Your task to perform on an android device: read, delete, or share a saved page in the chrome app Image 0: 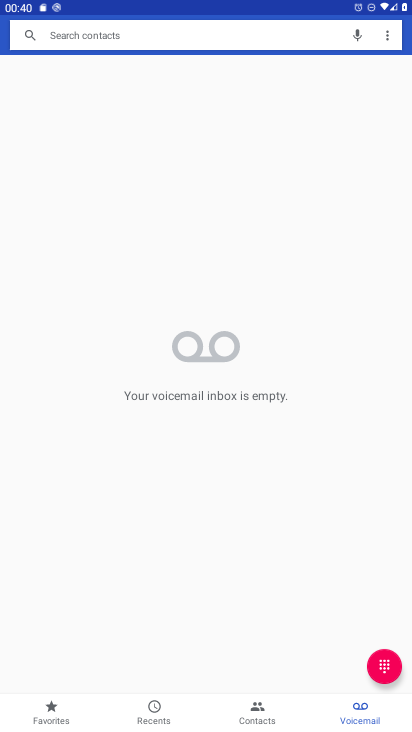
Step 0: press home button
Your task to perform on an android device: read, delete, or share a saved page in the chrome app Image 1: 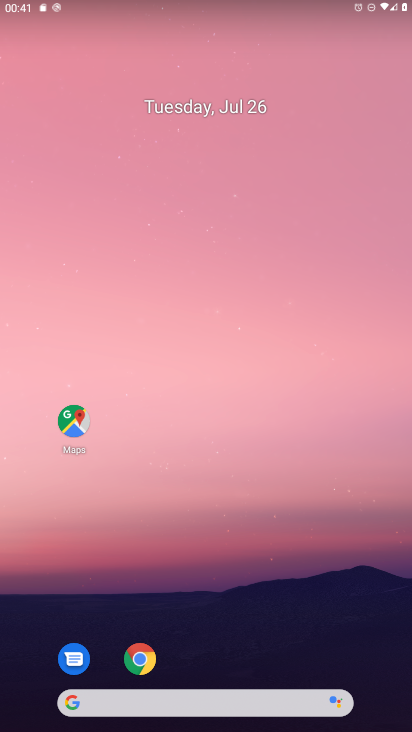
Step 1: click (140, 653)
Your task to perform on an android device: read, delete, or share a saved page in the chrome app Image 2: 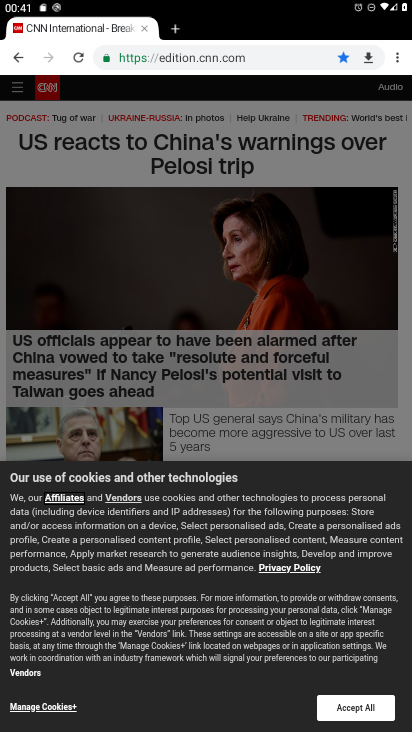
Step 2: drag from (157, 433) to (281, 188)
Your task to perform on an android device: read, delete, or share a saved page in the chrome app Image 3: 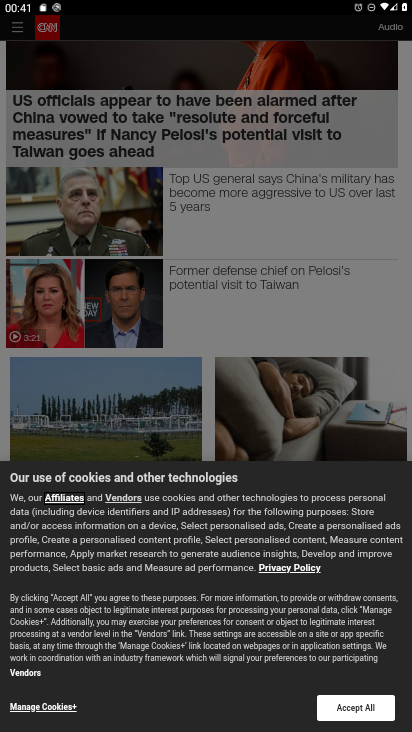
Step 3: drag from (309, 133) to (145, 512)
Your task to perform on an android device: read, delete, or share a saved page in the chrome app Image 4: 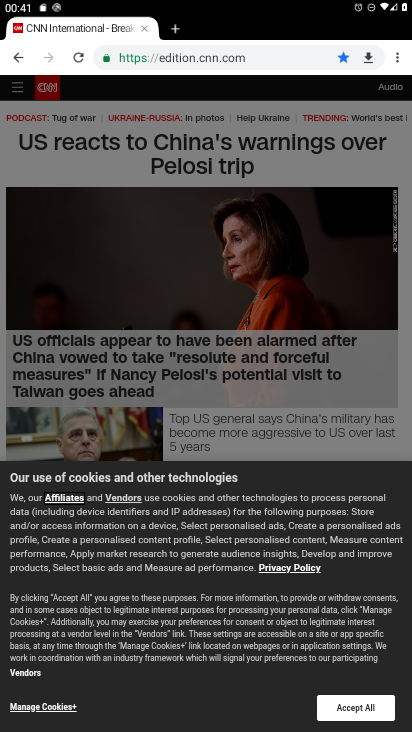
Step 4: click (340, 59)
Your task to perform on an android device: read, delete, or share a saved page in the chrome app Image 5: 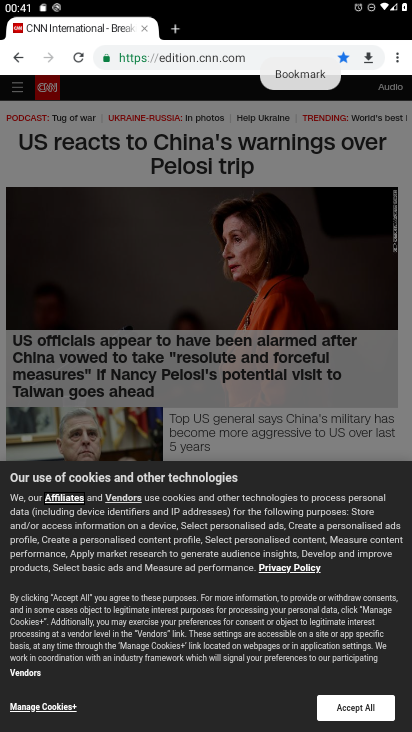
Step 5: click (340, 59)
Your task to perform on an android device: read, delete, or share a saved page in the chrome app Image 6: 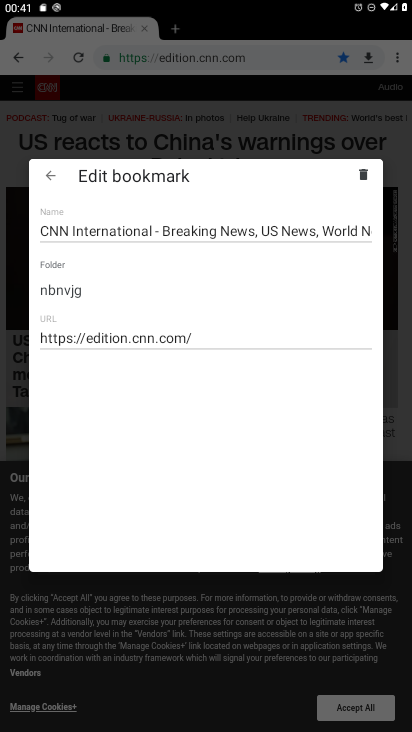
Step 6: click (363, 170)
Your task to perform on an android device: read, delete, or share a saved page in the chrome app Image 7: 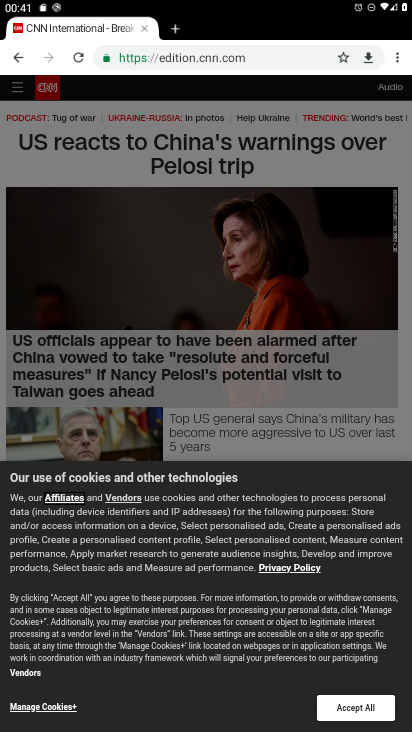
Step 7: click (340, 58)
Your task to perform on an android device: read, delete, or share a saved page in the chrome app Image 8: 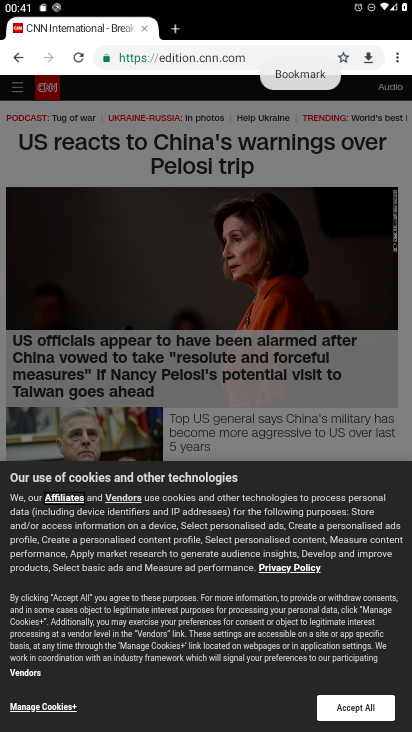
Step 8: click (344, 56)
Your task to perform on an android device: read, delete, or share a saved page in the chrome app Image 9: 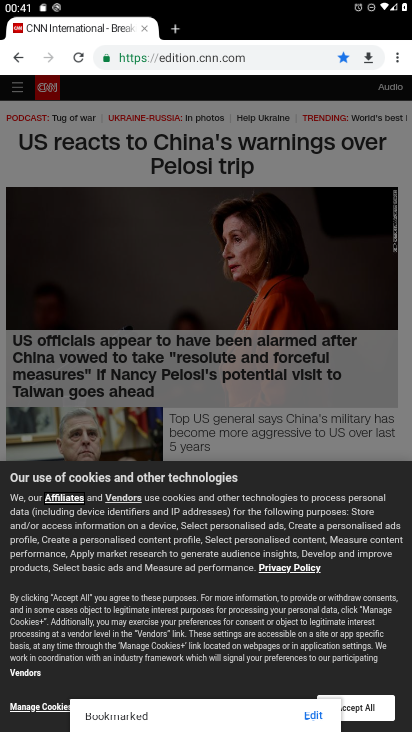
Step 9: task complete